Your task to perform on an android device: Open battery settings Image 0: 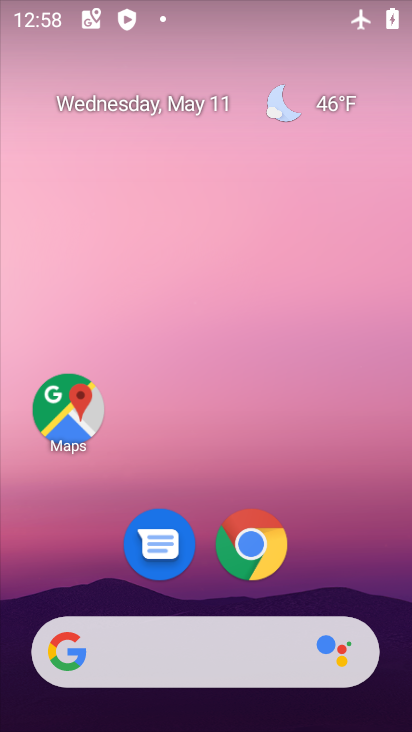
Step 0: drag from (390, 639) to (288, 117)
Your task to perform on an android device: Open battery settings Image 1: 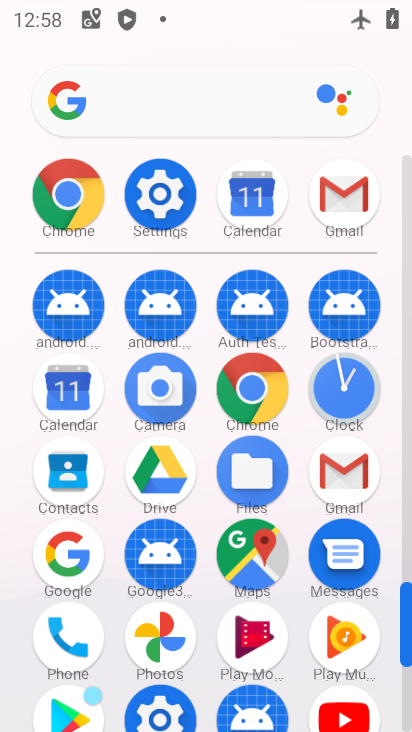
Step 1: click (408, 725)
Your task to perform on an android device: Open battery settings Image 2: 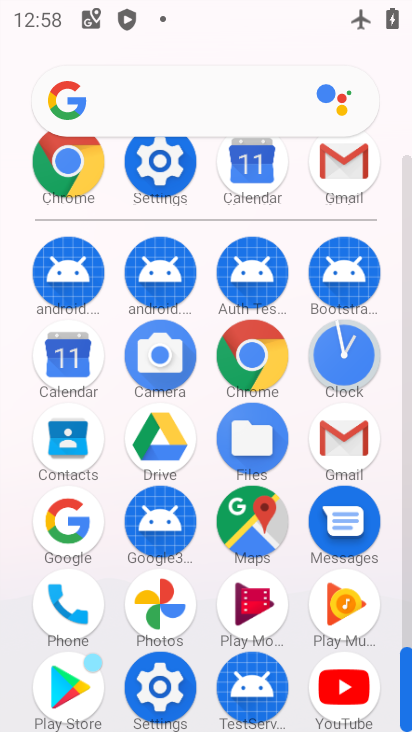
Step 2: click (161, 688)
Your task to perform on an android device: Open battery settings Image 3: 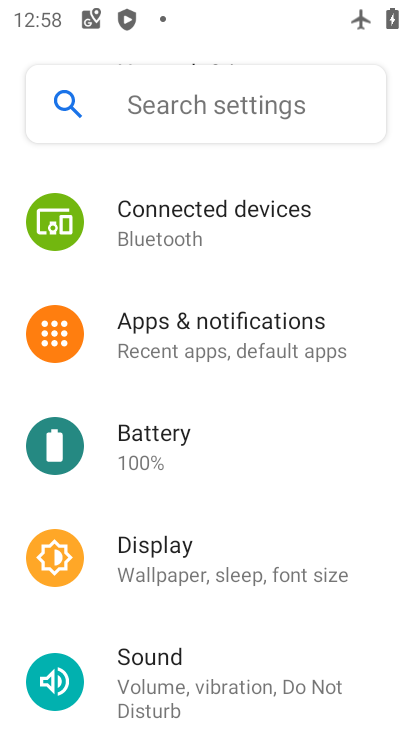
Step 3: click (142, 435)
Your task to perform on an android device: Open battery settings Image 4: 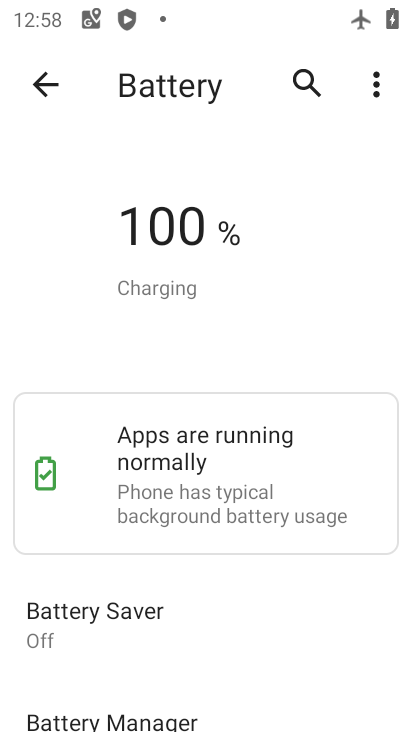
Step 4: task complete